Your task to perform on an android device: turn smart compose on in the gmail app Image 0: 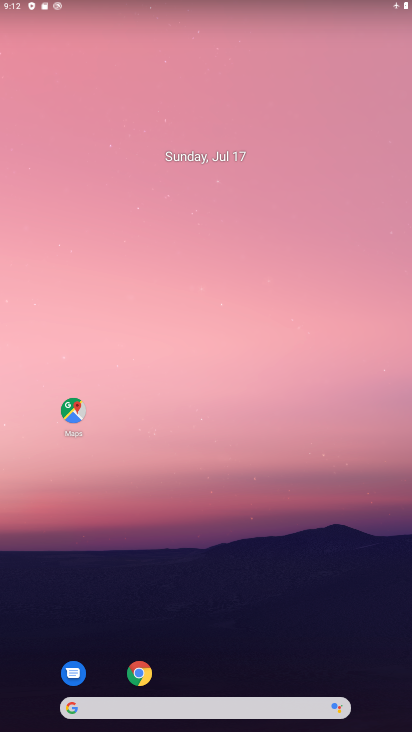
Step 0: drag from (386, 659) to (367, 69)
Your task to perform on an android device: turn smart compose on in the gmail app Image 1: 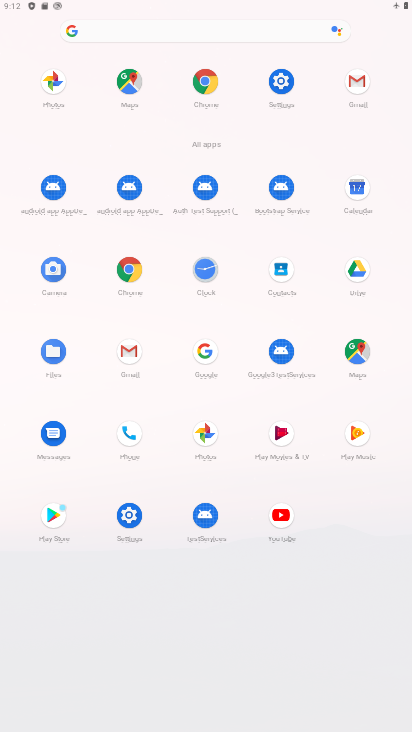
Step 1: click (126, 351)
Your task to perform on an android device: turn smart compose on in the gmail app Image 2: 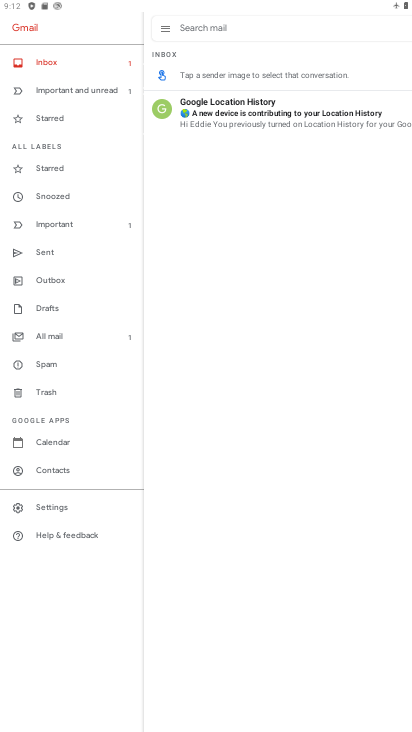
Step 2: click (59, 499)
Your task to perform on an android device: turn smart compose on in the gmail app Image 3: 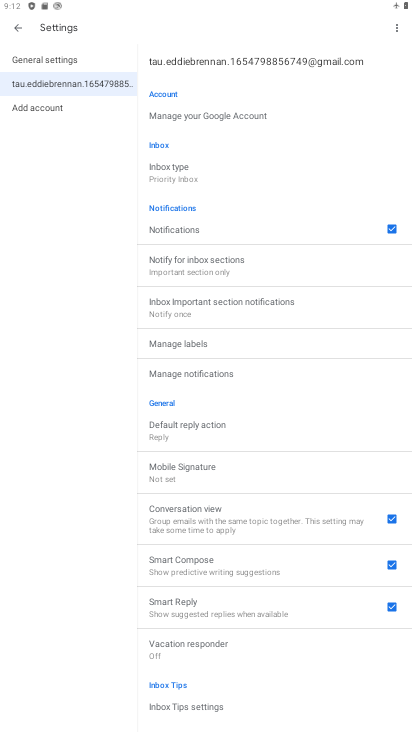
Step 3: task complete